Your task to perform on an android device: Clear the cart on amazon.com. Search for "logitech g910" on amazon.com, select the first entry, add it to the cart, then select checkout. Image 0: 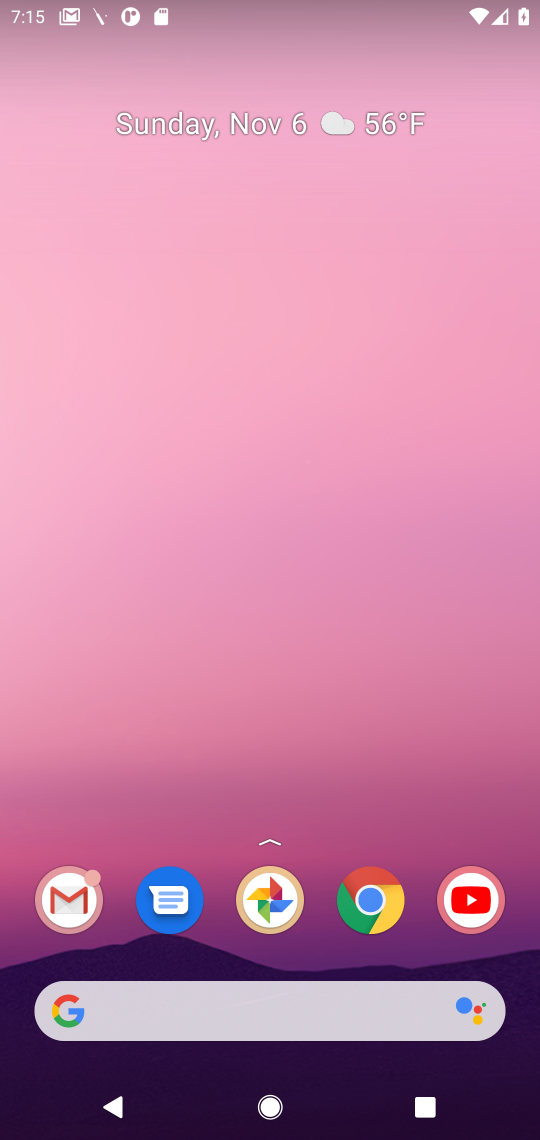
Step 0: drag from (313, 958) to (230, 204)
Your task to perform on an android device: Clear the cart on amazon.com. Search for "logitech g910" on amazon.com, select the first entry, add it to the cart, then select checkout. Image 1: 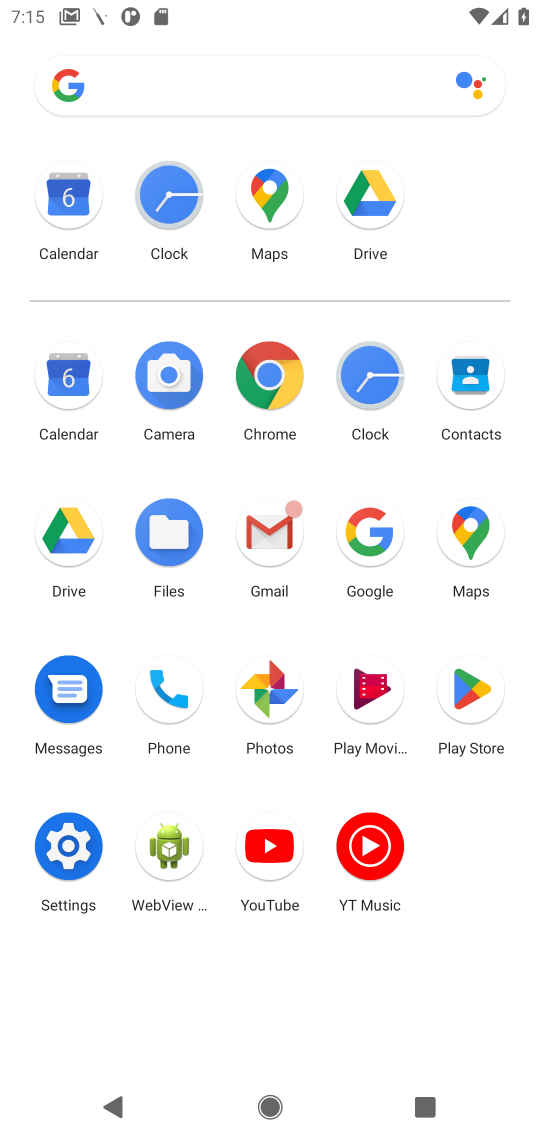
Step 1: click (264, 367)
Your task to perform on an android device: Clear the cart on amazon.com. Search for "logitech g910" on amazon.com, select the first entry, add it to the cart, then select checkout. Image 2: 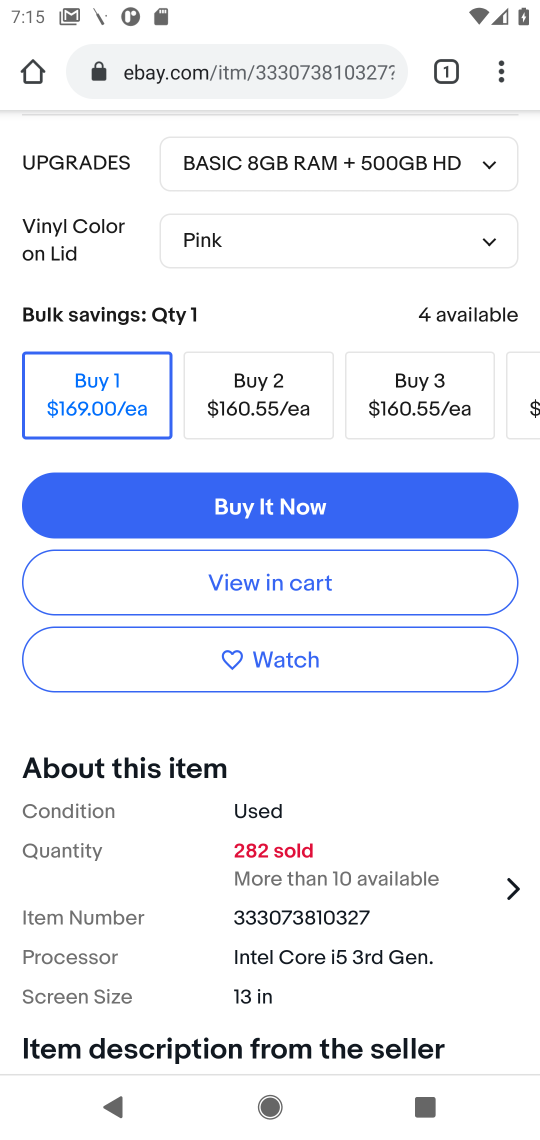
Step 2: click (274, 67)
Your task to perform on an android device: Clear the cart on amazon.com. Search for "logitech g910" on amazon.com, select the first entry, add it to the cart, then select checkout. Image 3: 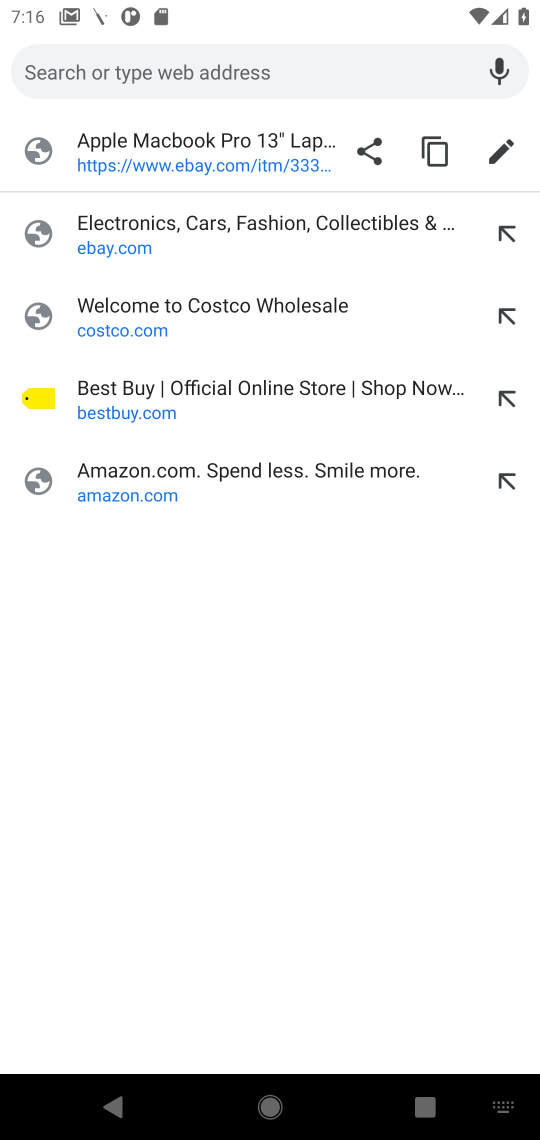
Step 3: type "amazon.com"
Your task to perform on an android device: Clear the cart on amazon.com. Search for "logitech g910" on amazon.com, select the first entry, add it to the cart, then select checkout. Image 4: 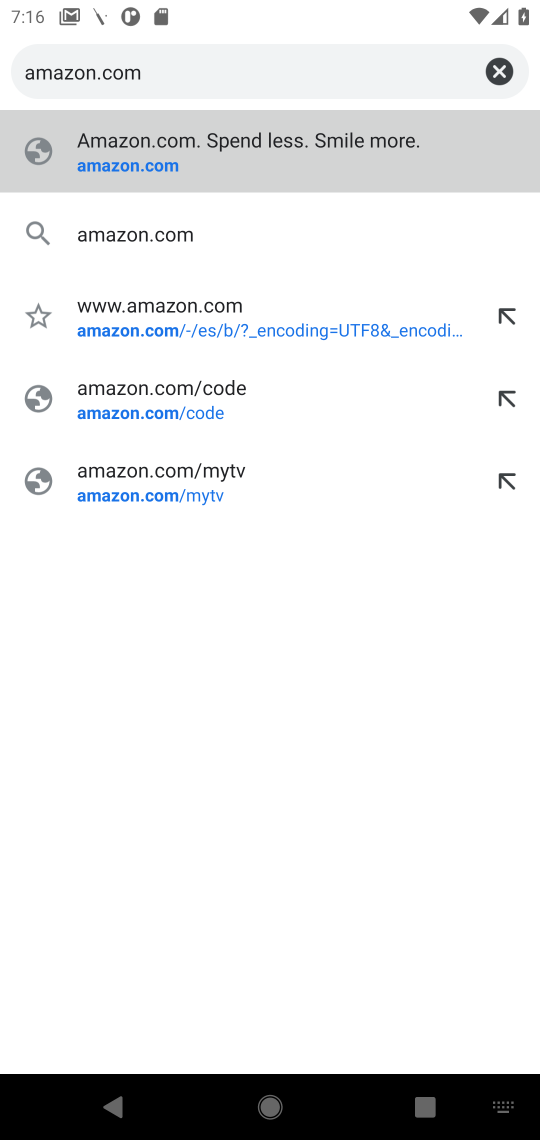
Step 4: press enter
Your task to perform on an android device: Clear the cart on amazon.com. Search for "logitech g910" on amazon.com, select the first entry, add it to the cart, then select checkout. Image 5: 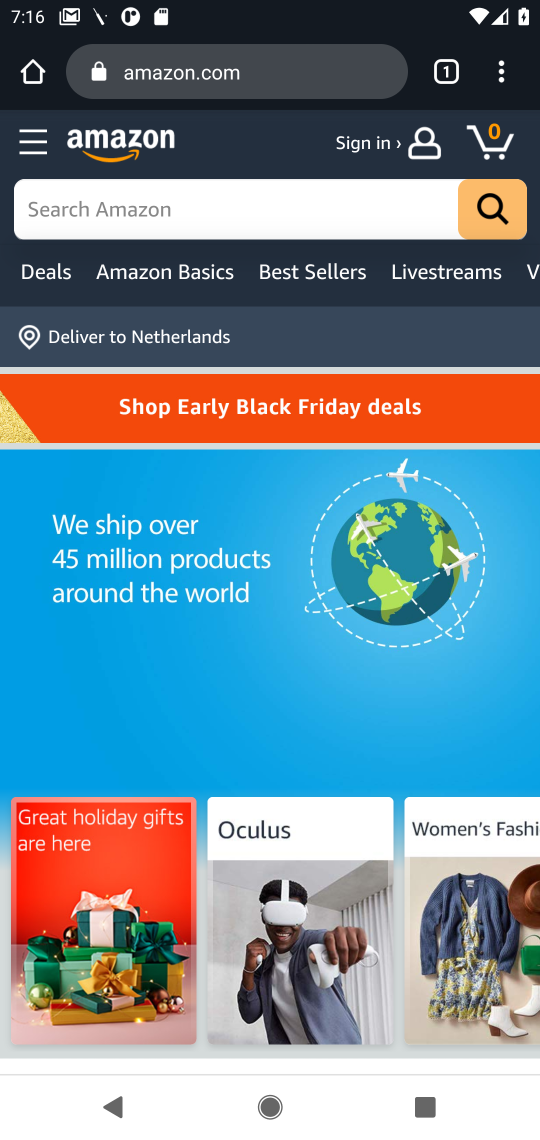
Step 5: click (492, 134)
Your task to perform on an android device: Clear the cart on amazon.com. Search for "logitech g910" on amazon.com, select the first entry, add it to the cart, then select checkout. Image 6: 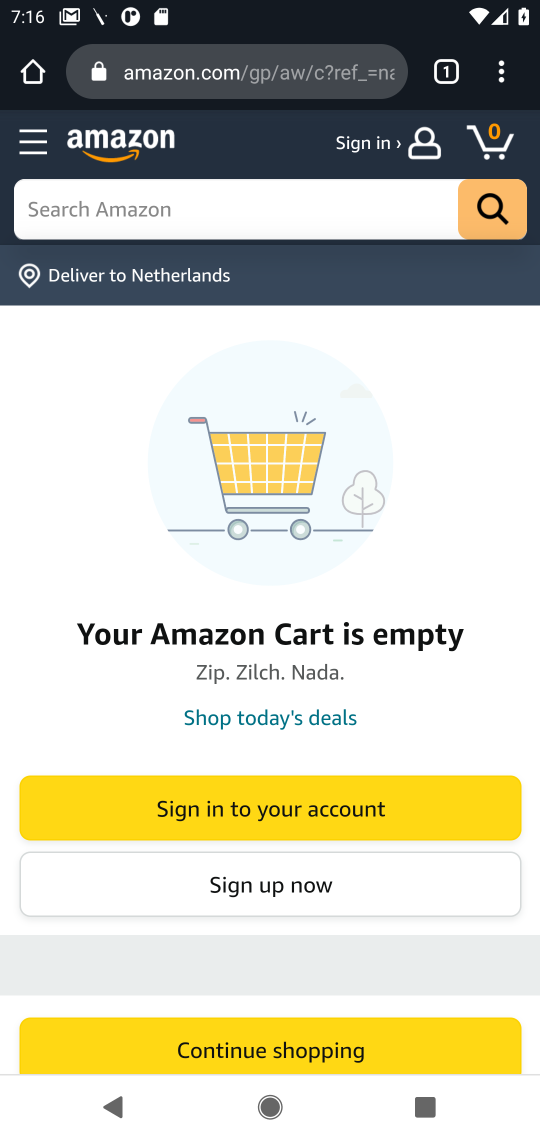
Step 6: click (346, 200)
Your task to perform on an android device: Clear the cart on amazon.com. Search for "logitech g910" on amazon.com, select the first entry, add it to the cart, then select checkout. Image 7: 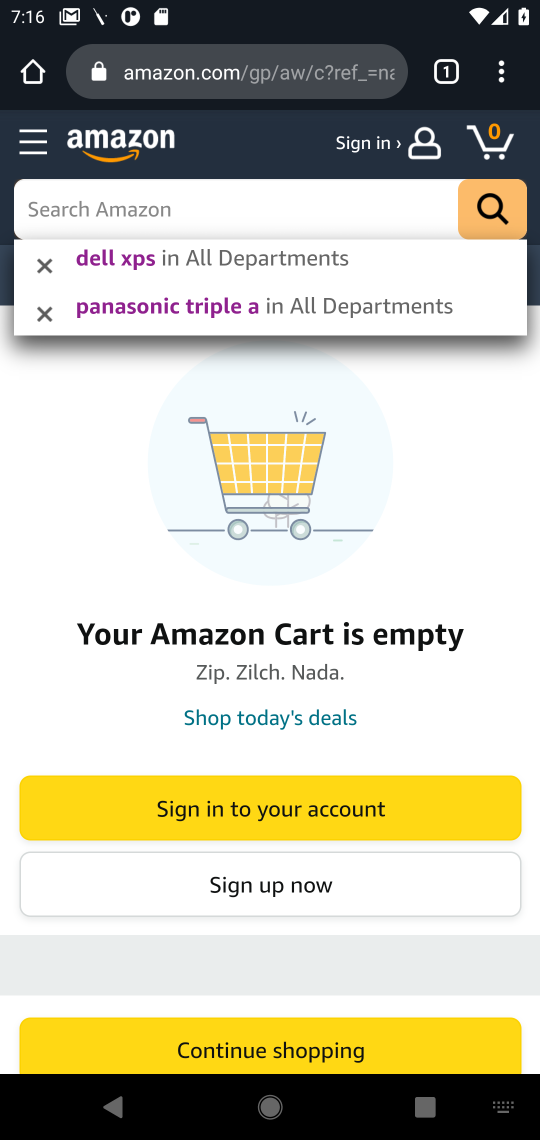
Step 7: type "logitech g910"
Your task to perform on an android device: Clear the cart on amazon.com. Search for "logitech g910" on amazon.com, select the first entry, add it to the cart, then select checkout. Image 8: 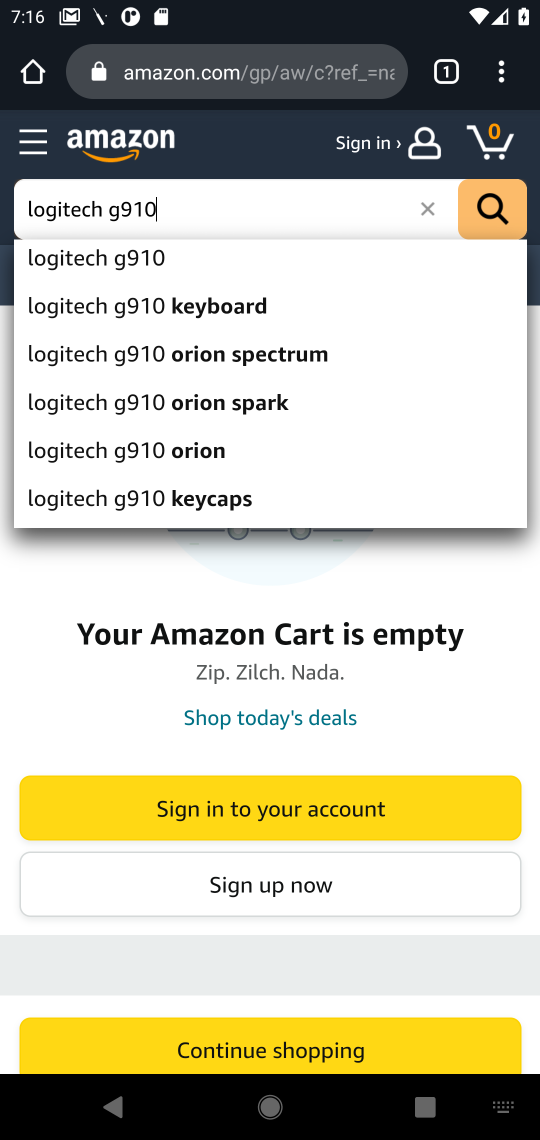
Step 8: press enter
Your task to perform on an android device: Clear the cart on amazon.com. Search for "logitech g910" on amazon.com, select the first entry, add it to the cart, then select checkout. Image 9: 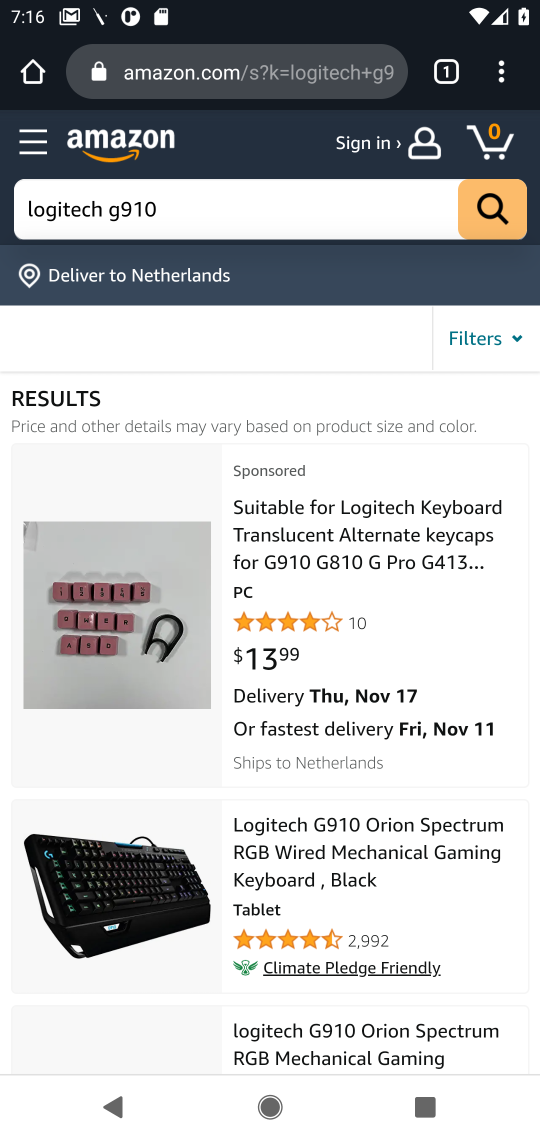
Step 9: click (289, 843)
Your task to perform on an android device: Clear the cart on amazon.com. Search for "logitech g910" on amazon.com, select the first entry, add it to the cart, then select checkout. Image 10: 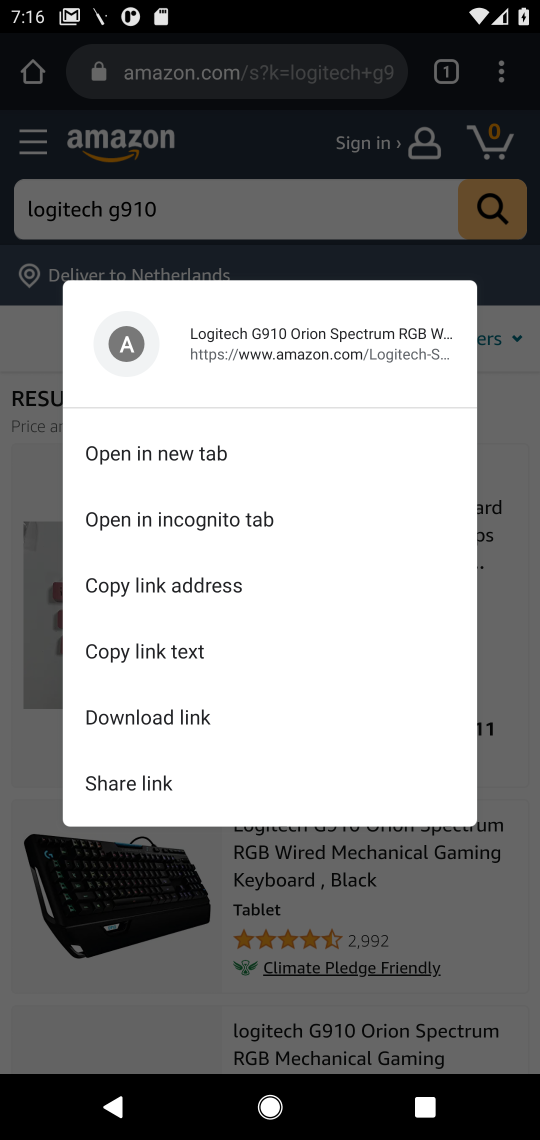
Step 10: click (315, 860)
Your task to perform on an android device: Clear the cart on amazon.com. Search for "logitech g910" on amazon.com, select the first entry, add it to the cart, then select checkout. Image 11: 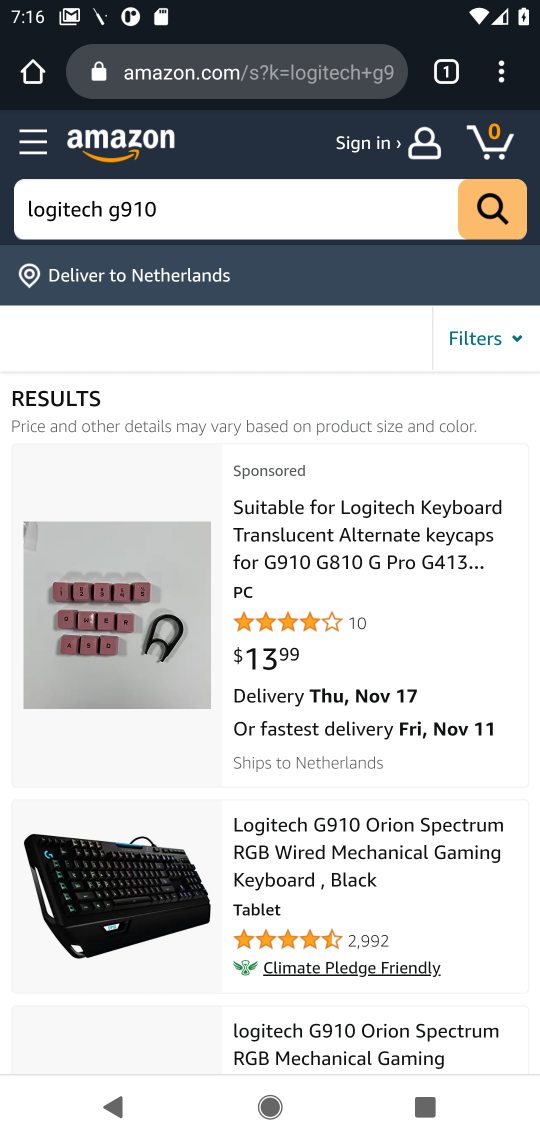
Step 11: click (248, 846)
Your task to perform on an android device: Clear the cart on amazon.com. Search for "logitech g910" on amazon.com, select the first entry, add it to the cart, then select checkout. Image 12: 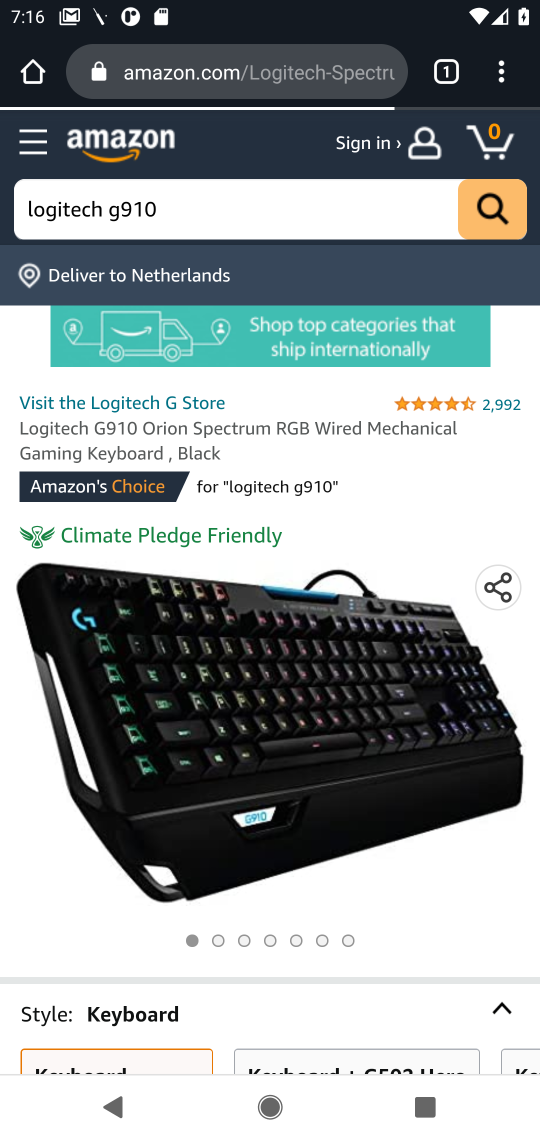
Step 12: task complete